Your task to perform on an android device: Is it going to rain today? Image 0: 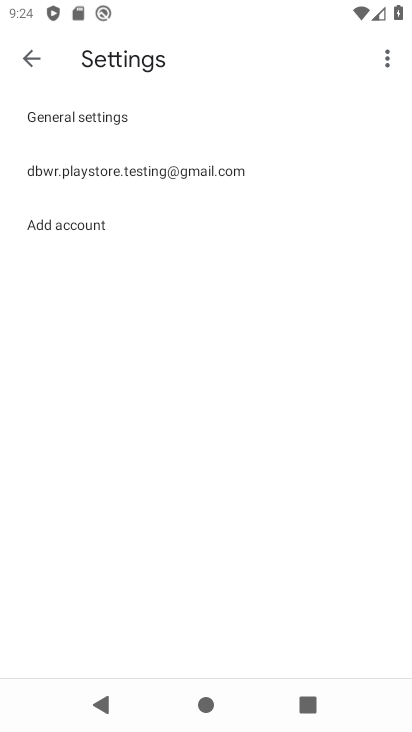
Step 0: press back button
Your task to perform on an android device: Is it going to rain today? Image 1: 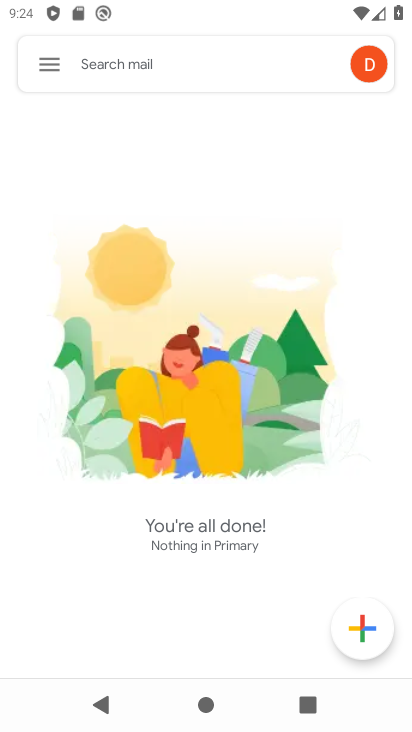
Step 1: press back button
Your task to perform on an android device: Is it going to rain today? Image 2: 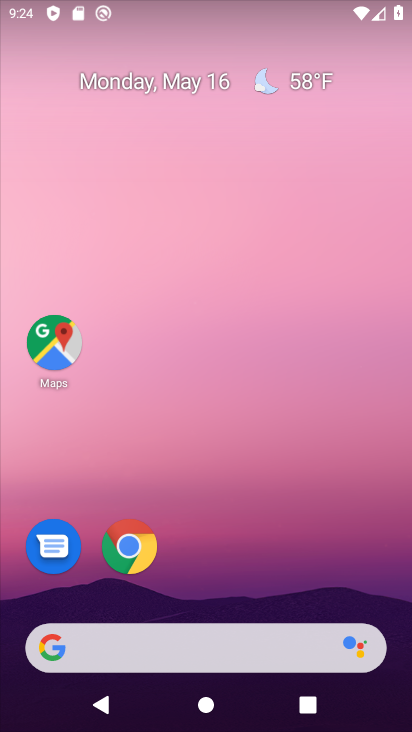
Step 2: drag from (223, 568) to (181, 164)
Your task to perform on an android device: Is it going to rain today? Image 3: 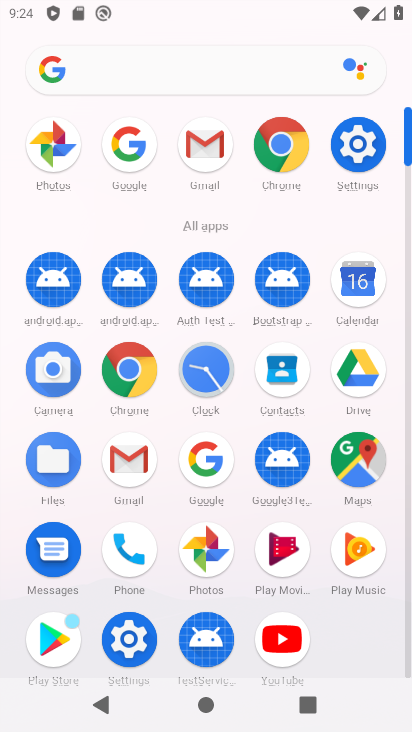
Step 3: click (125, 143)
Your task to perform on an android device: Is it going to rain today? Image 4: 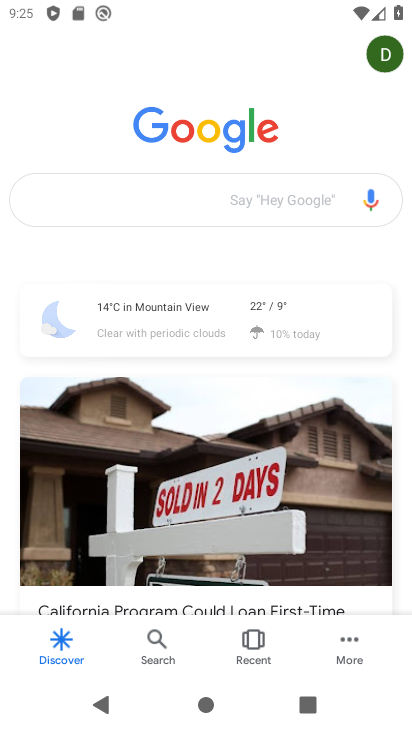
Step 4: click (175, 311)
Your task to perform on an android device: Is it going to rain today? Image 5: 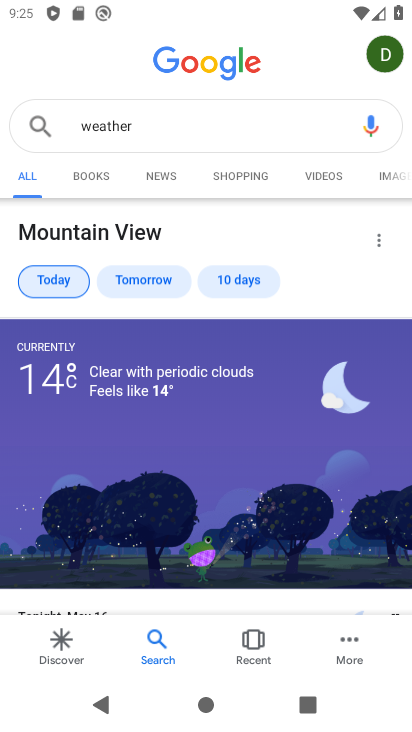
Step 5: task complete